Your task to perform on an android device: Set the phone to "Do not disturb". Image 0: 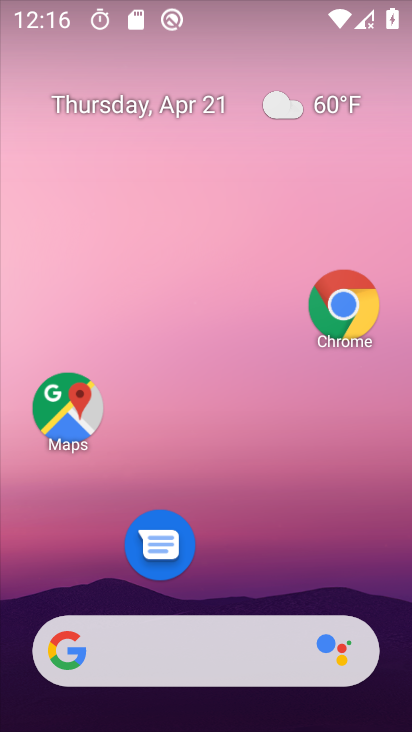
Step 0: drag from (318, 28) to (316, 392)
Your task to perform on an android device: Set the phone to "Do not disturb". Image 1: 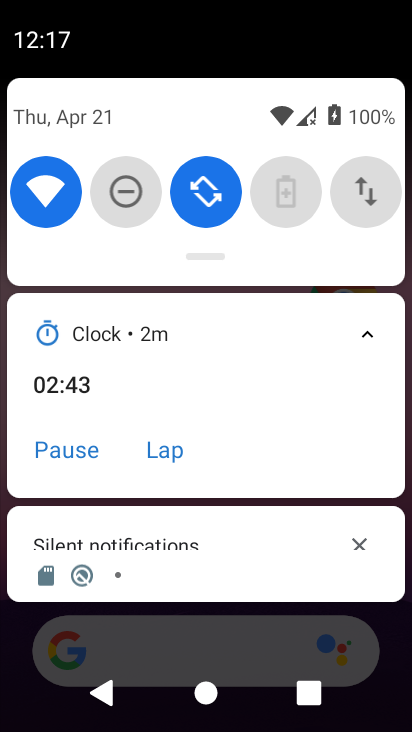
Step 1: click (147, 186)
Your task to perform on an android device: Set the phone to "Do not disturb". Image 2: 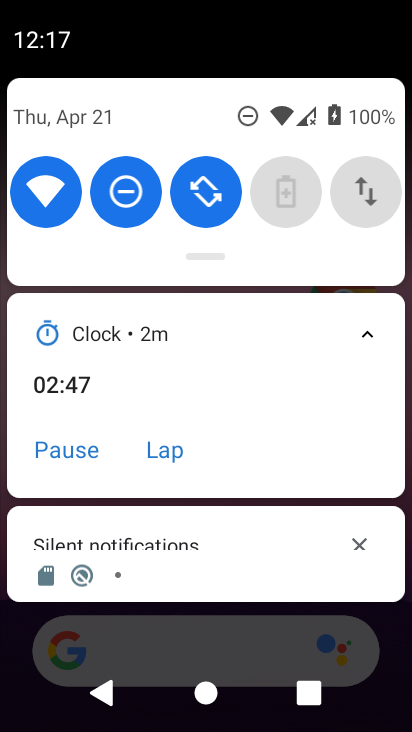
Step 2: task complete